Your task to perform on an android device: clear all cookies in the chrome app Image 0: 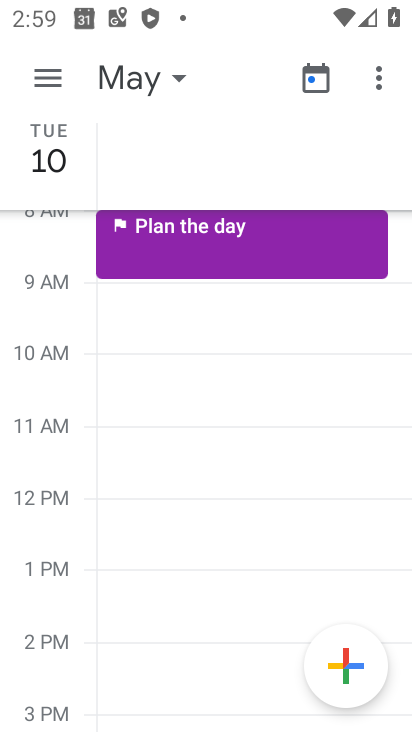
Step 0: press home button
Your task to perform on an android device: clear all cookies in the chrome app Image 1: 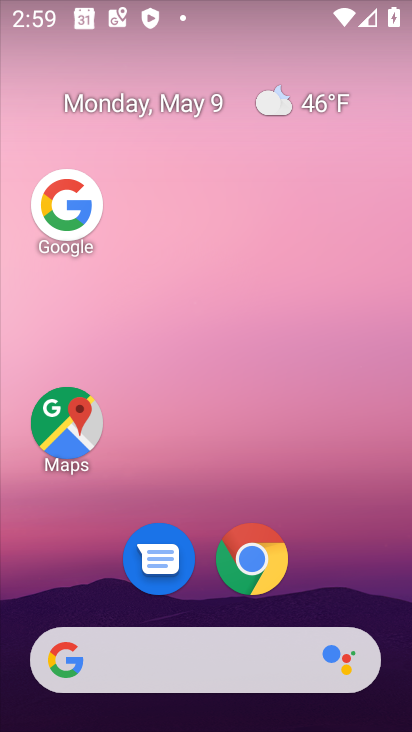
Step 1: click (262, 574)
Your task to perform on an android device: clear all cookies in the chrome app Image 2: 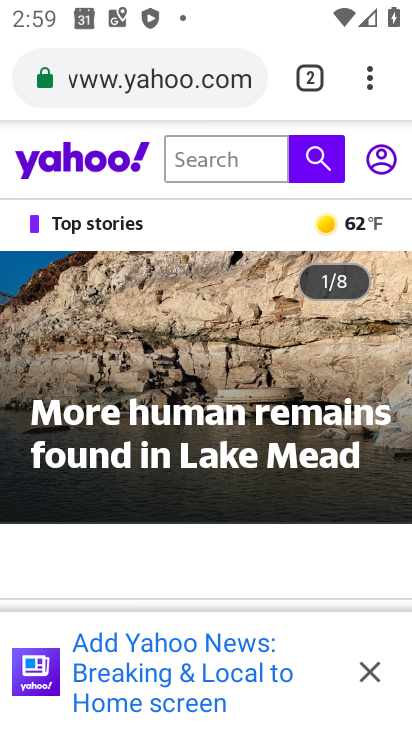
Step 2: click (373, 67)
Your task to perform on an android device: clear all cookies in the chrome app Image 3: 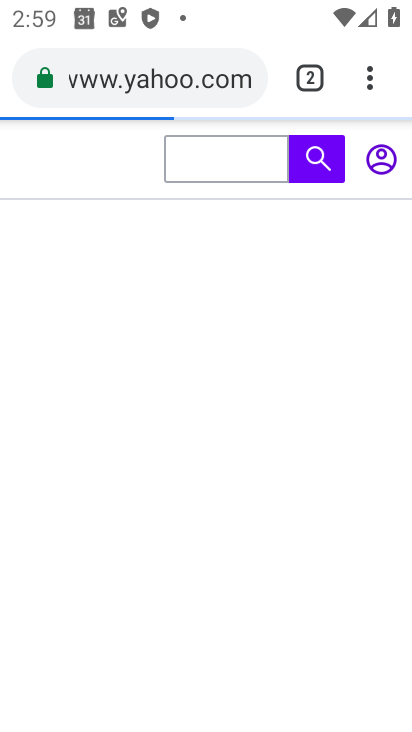
Step 3: click (375, 86)
Your task to perform on an android device: clear all cookies in the chrome app Image 4: 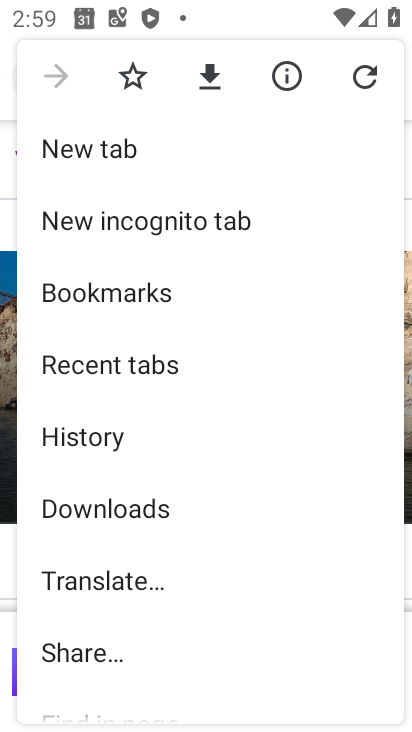
Step 4: drag from (296, 578) to (244, 74)
Your task to perform on an android device: clear all cookies in the chrome app Image 5: 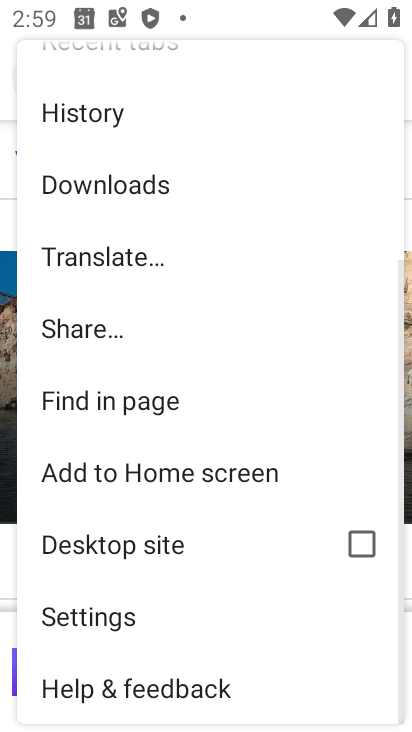
Step 5: click (119, 614)
Your task to perform on an android device: clear all cookies in the chrome app Image 6: 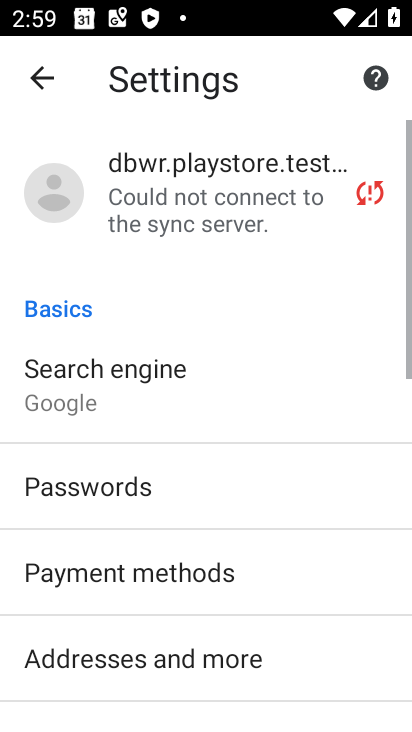
Step 6: drag from (212, 585) to (198, 188)
Your task to perform on an android device: clear all cookies in the chrome app Image 7: 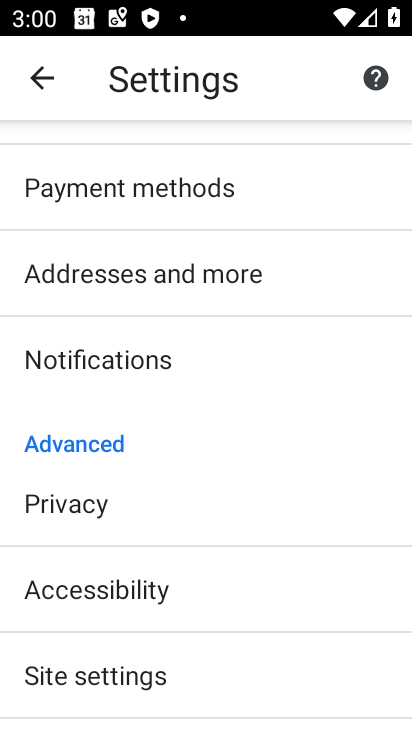
Step 7: click (203, 509)
Your task to perform on an android device: clear all cookies in the chrome app Image 8: 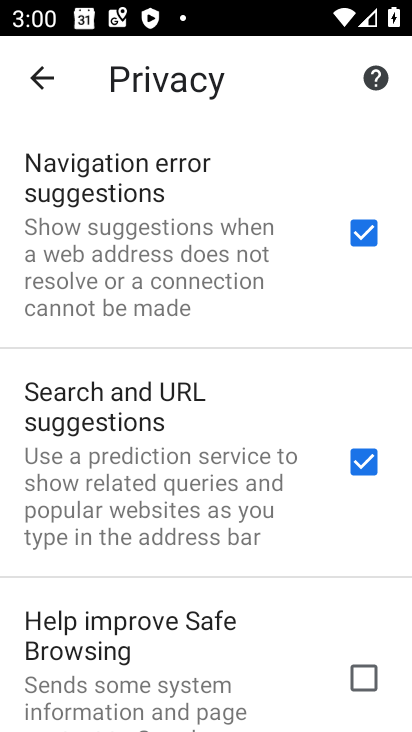
Step 8: drag from (276, 663) to (229, 129)
Your task to perform on an android device: clear all cookies in the chrome app Image 9: 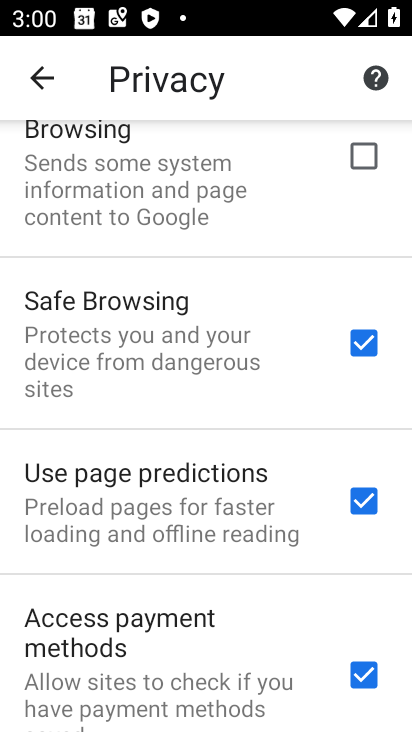
Step 9: drag from (236, 653) to (213, 60)
Your task to perform on an android device: clear all cookies in the chrome app Image 10: 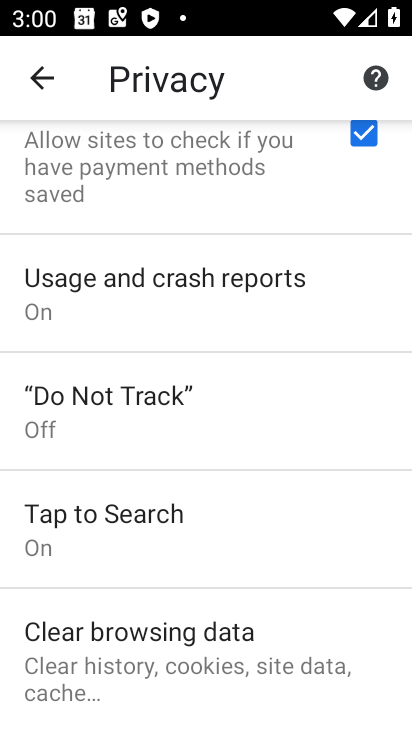
Step 10: click (244, 640)
Your task to perform on an android device: clear all cookies in the chrome app Image 11: 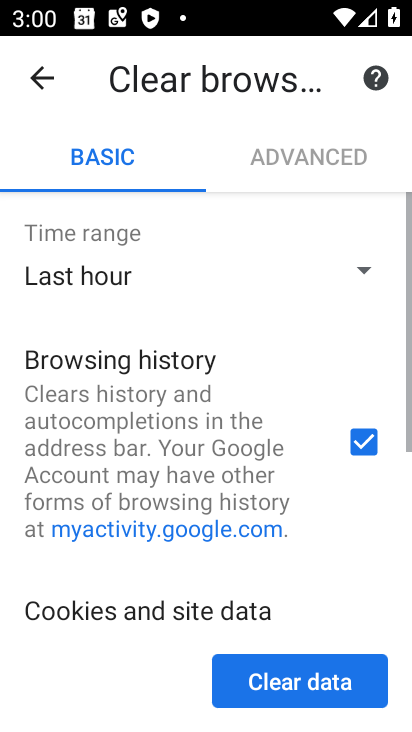
Step 11: drag from (242, 588) to (209, 225)
Your task to perform on an android device: clear all cookies in the chrome app Image 12: 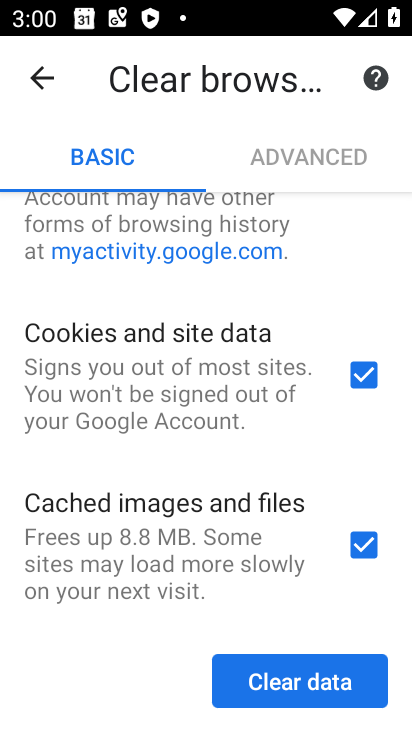
Step 12: click (333, 675)
Your task to perform on an android device: clear all cookies in the chrome app Image 13: 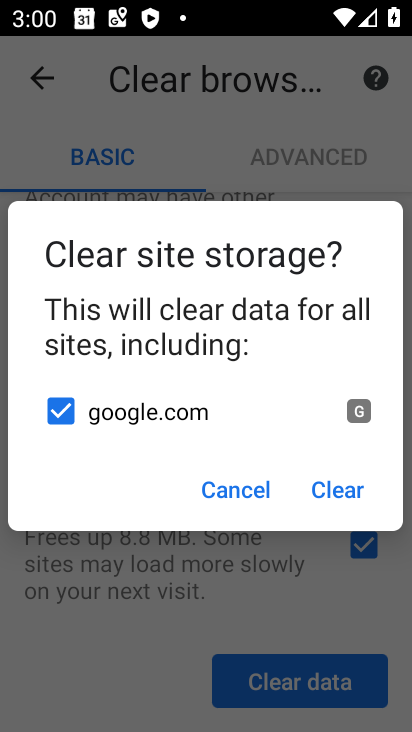
Step 13: click (338, 480)
Your task to perform on an android device: clear all cookies in the chrome app Image 14: 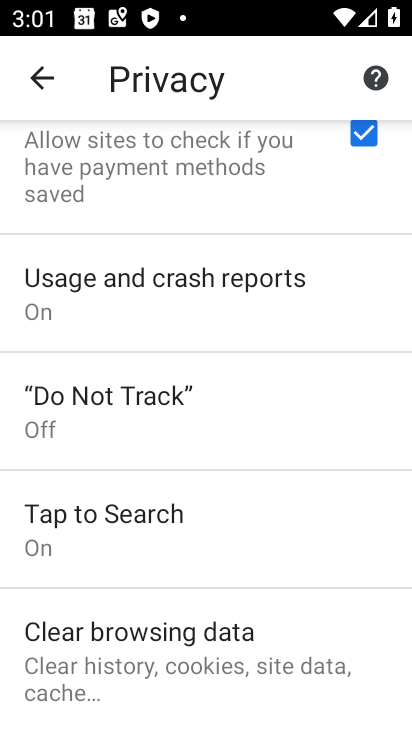
Step 14: task complete